Your task to perform on an android device: Show me popular games on the Play Store Image 0: 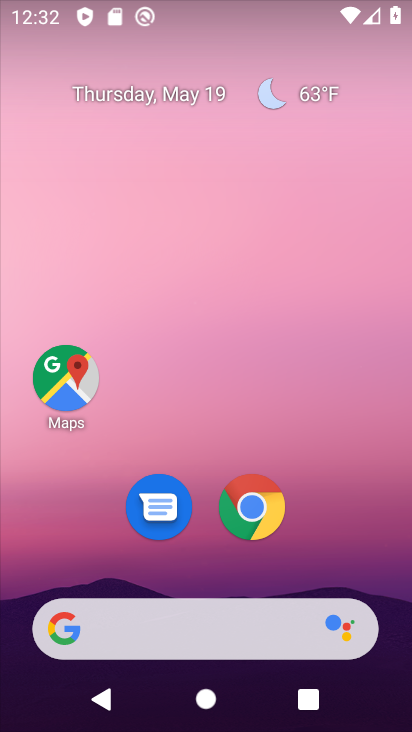
Step 0: drag from (182, 594) to (230, 195)
Your task to perform on an android device: Show me popular games on the Play Store Image 1: 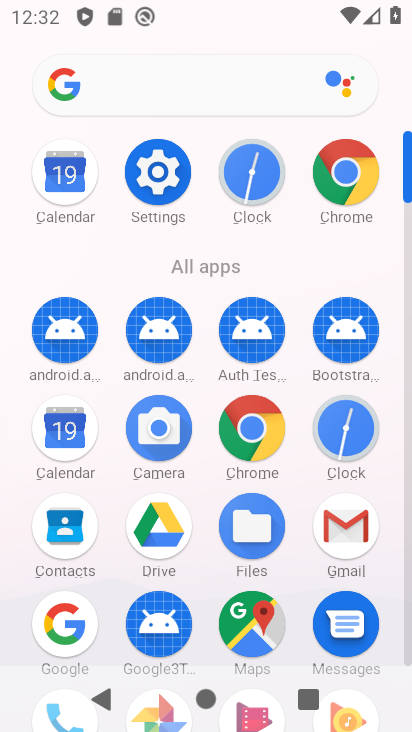
Step 1: drag from (117, 650) to (150, 304)
Your task to perform on an android device: Show me popular games on the Play Store Image 2: 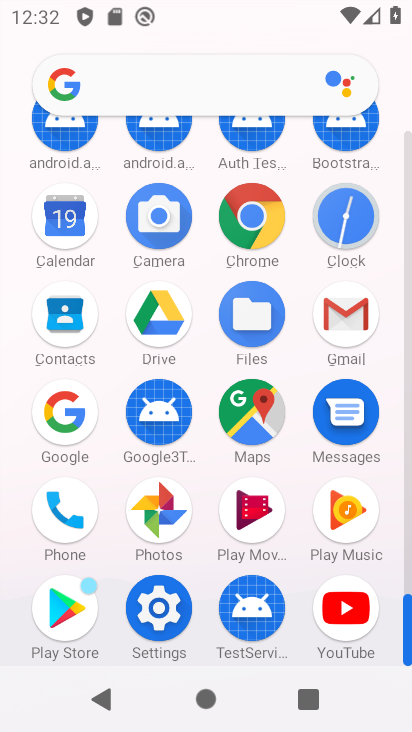
Step 2: click (55, 626)
Your task to perform on an android device: Show me popular games on the Play Store Image 3: 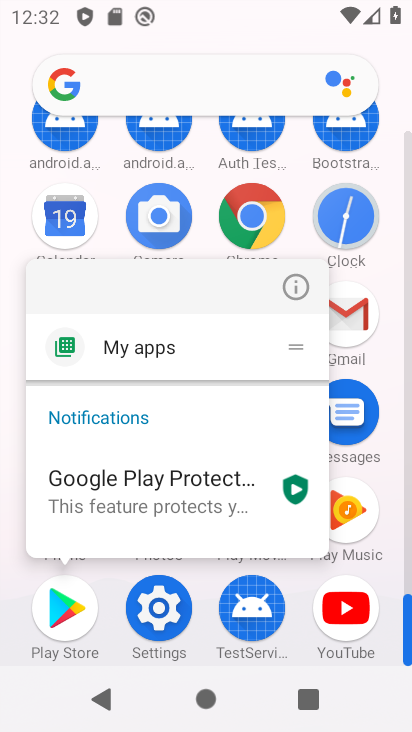
Step 3: click (73, 598)
Your task to perform on an android device: Show me popular games on the Play Store Image 4: 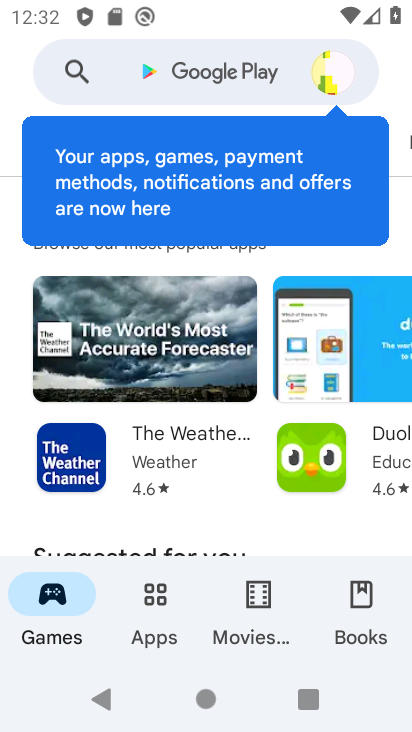
Step 4: click (229, 67)
Your task to perform on an android device: Show me popular games on the Play Store Image 5: 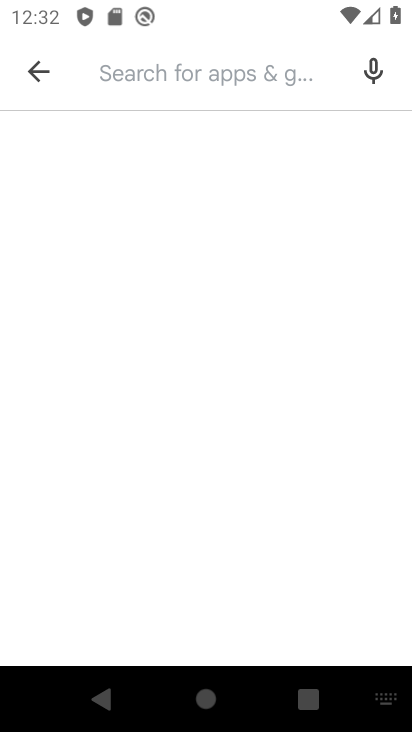
Step 5: type "popular games"
Your task to perform on an android device: Show me popular games on the Play Store Image 6: 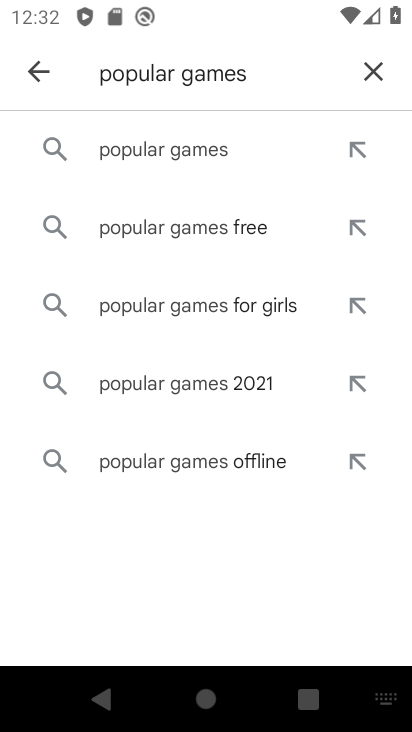
Step 6: click (213, 157)
Your task to perform on an android device: Show me popular games on the Play Store Image 7: 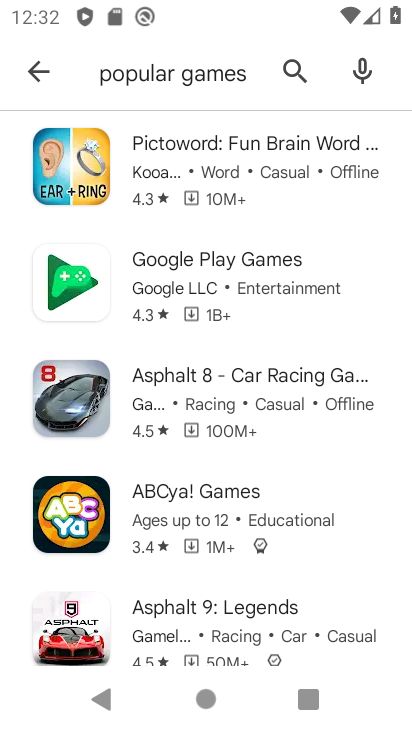
Step 7: task complete